Your task to perform on an android device: Search for the new Apple Watch on Best Buy Image 0: 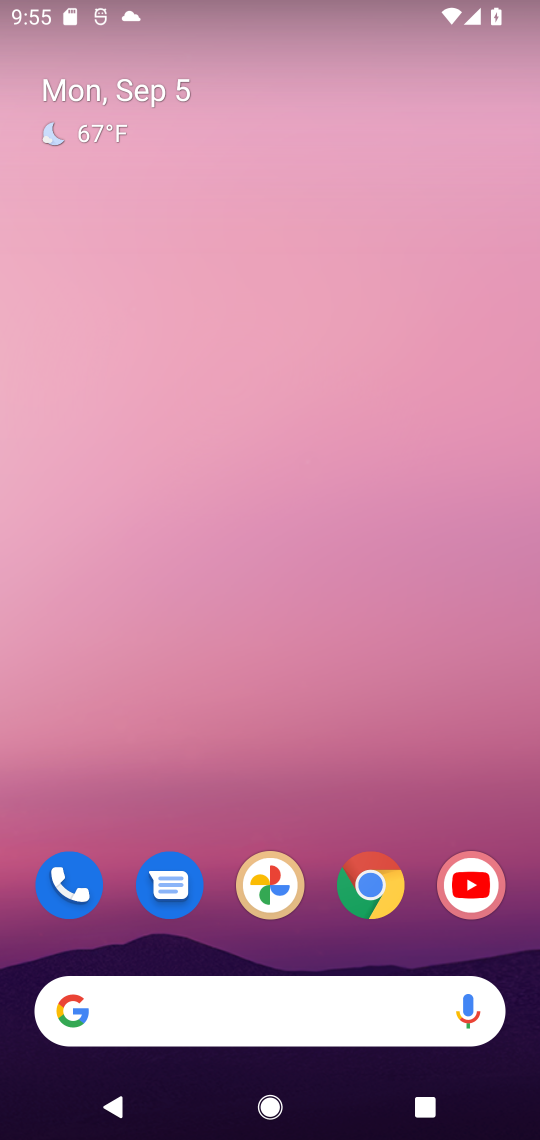
Step 0: click (367, 891)
Your task to perform on an android device: Search for the new Apple Watch on Best Buy Image 1: 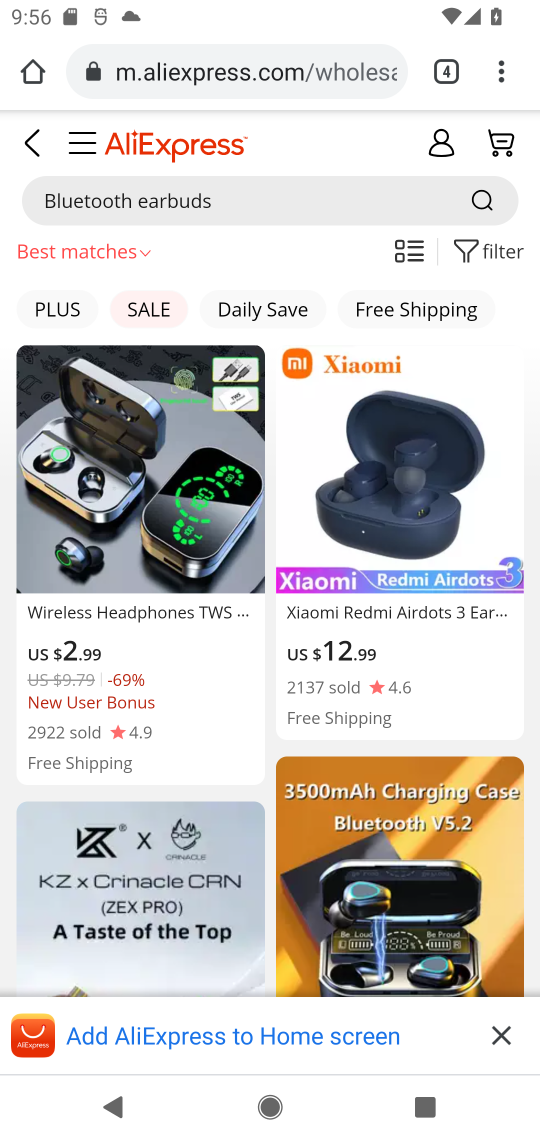
Step 1: click (498, 82)
Your task to perform on an android device: Search for the new Apple Watch on Best Buy Image 2: 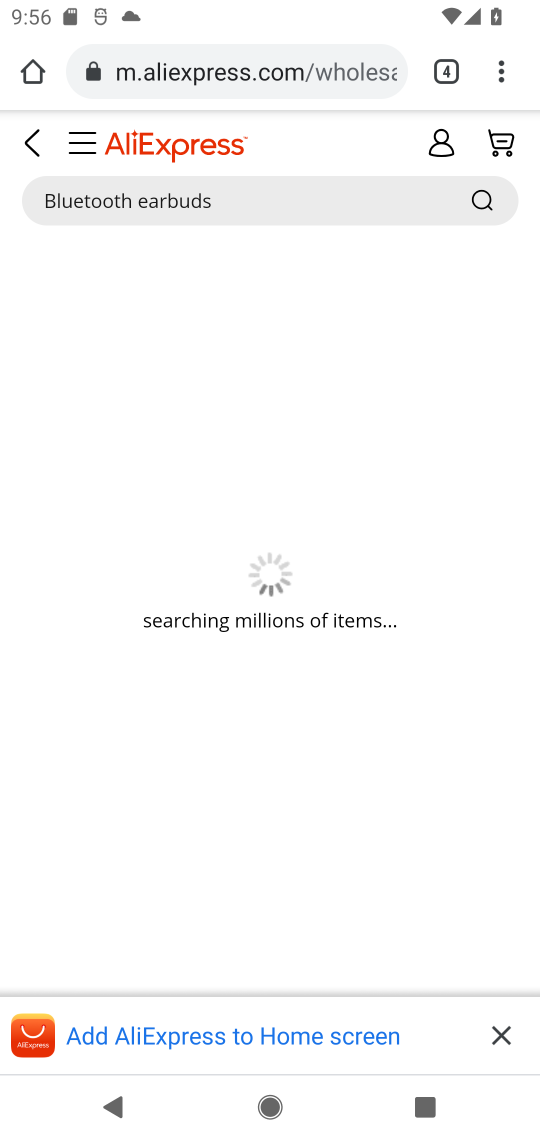
Step 2: drag from (502, 78) to (258, 241)
Your task to perform on an android device: Search for the new Apple Watch on Best Buy Image 3: 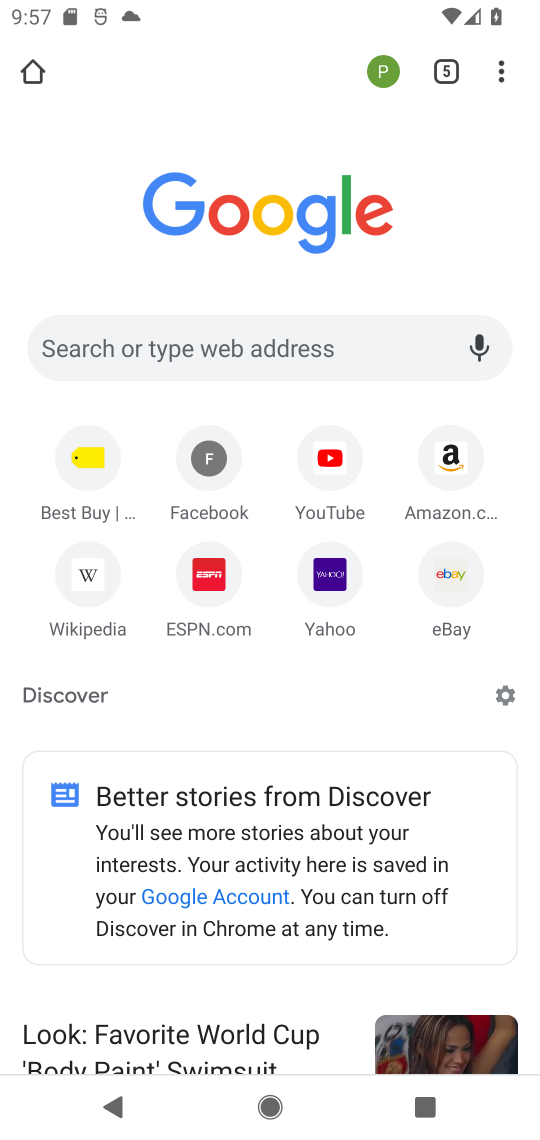
Step 3: click (294, 348)
Your task to perform on an android device: Search for the new Apple Watch on Best Buy Image 4: 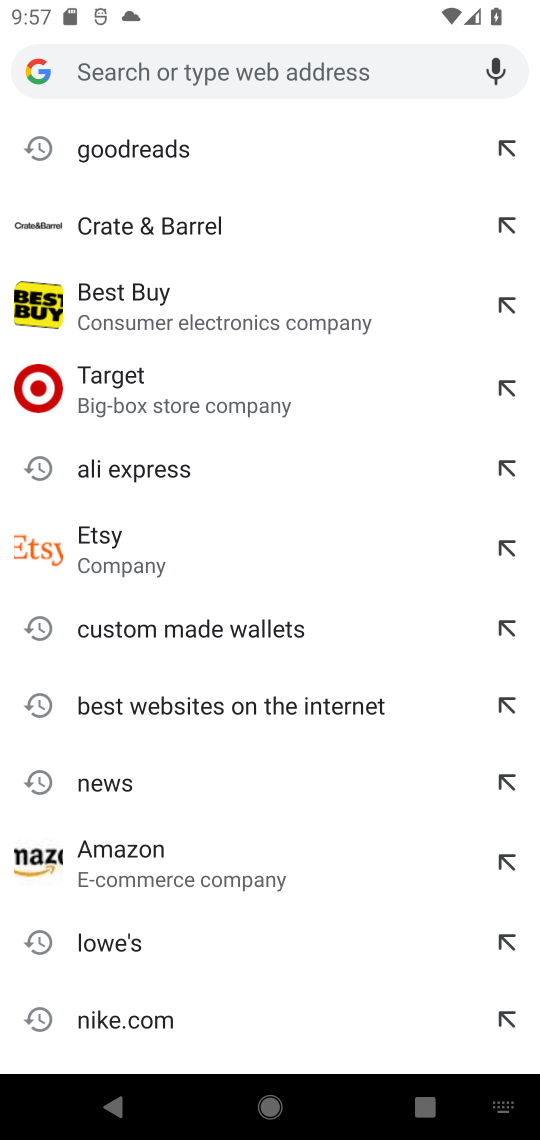
Step 4: type "Best Buy"
Your task to perform on an android device: Search for the new Apple Watch on Best Buy Image 5: 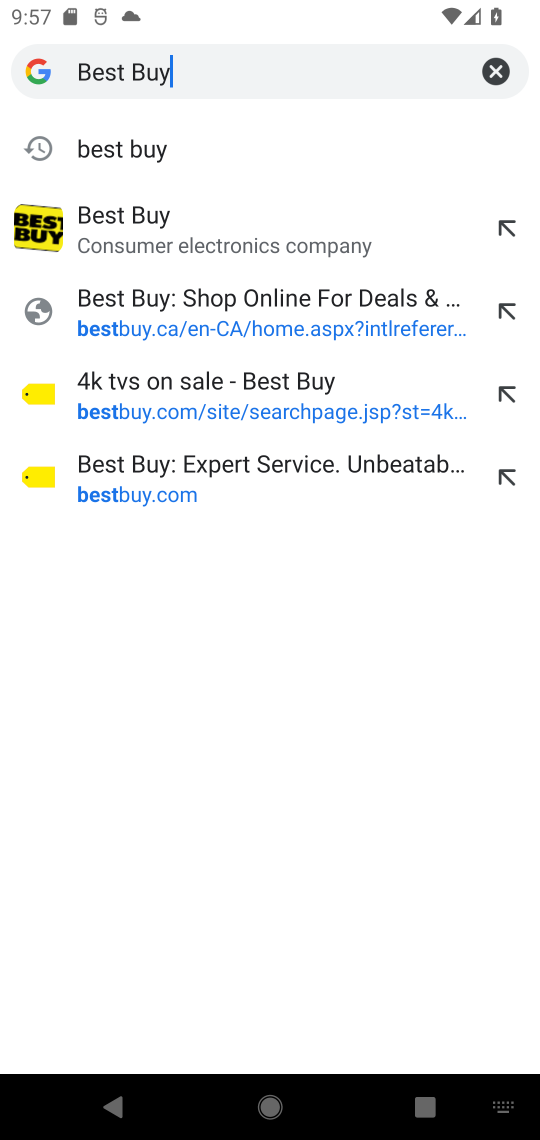
Step 5: click (141, 150)
Your task to perform on an android device: Search for the new Apple Watch on Best Buy Image 6: 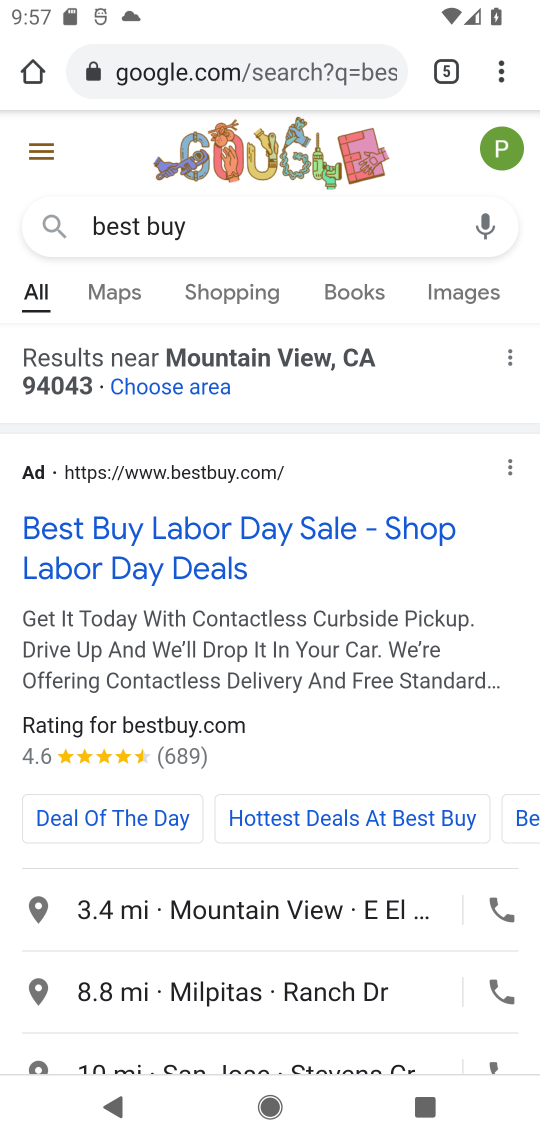
Step 6: click (270, 538)
Your task to perform on an android device: Search for the new Apple Watch on Best Buy Image 7: 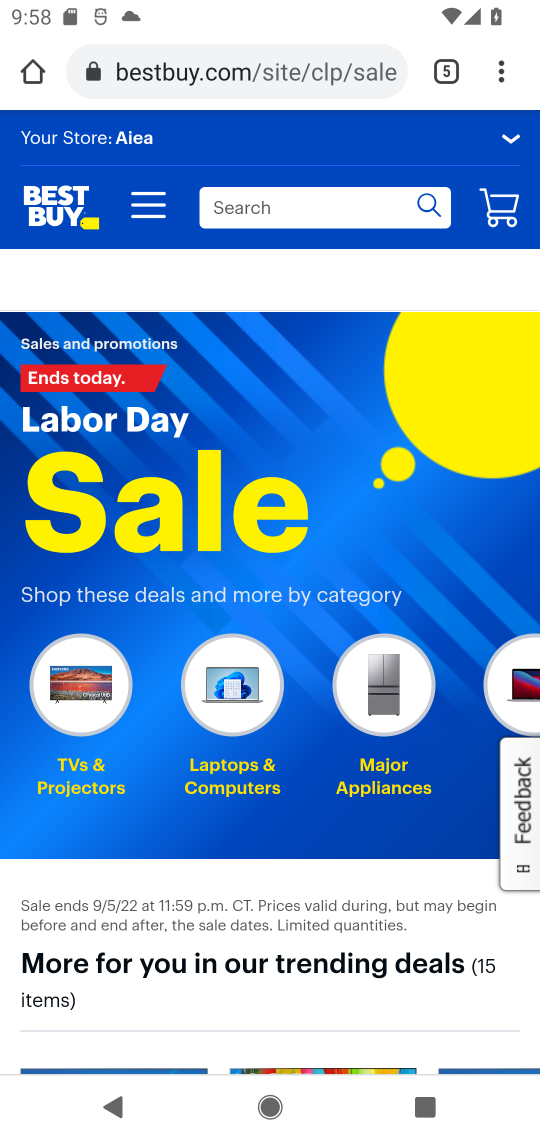
Step 7: click (279, 201)
Your task to perform on an android device: Search for the new Apple Watch on Best Buy Image 8: 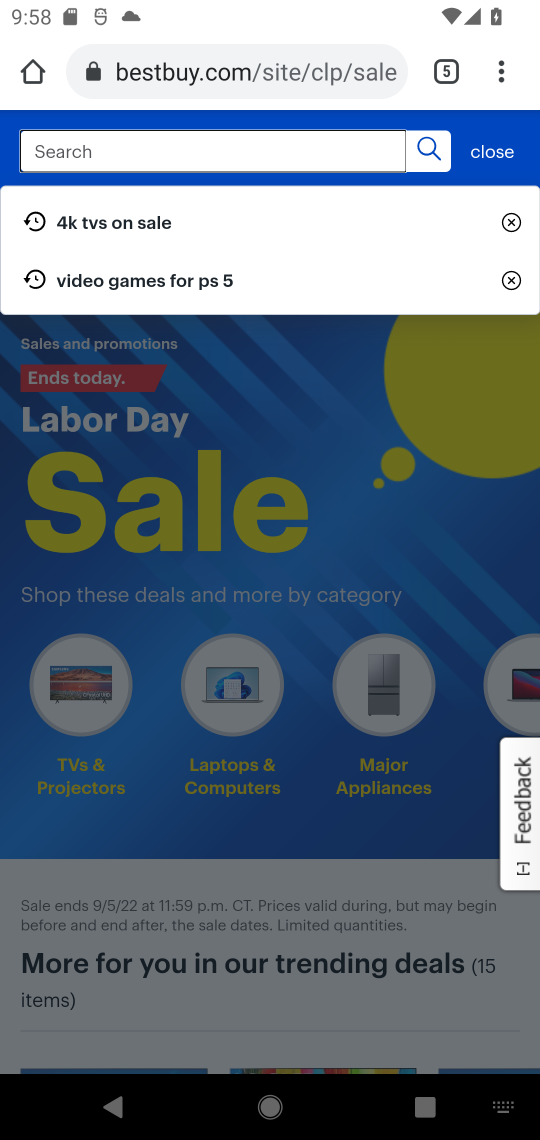
Step 8: type "new Apple Watch "
Your task to perform on an android device: Search for the new Apple Watch on Best Buy Image 9: 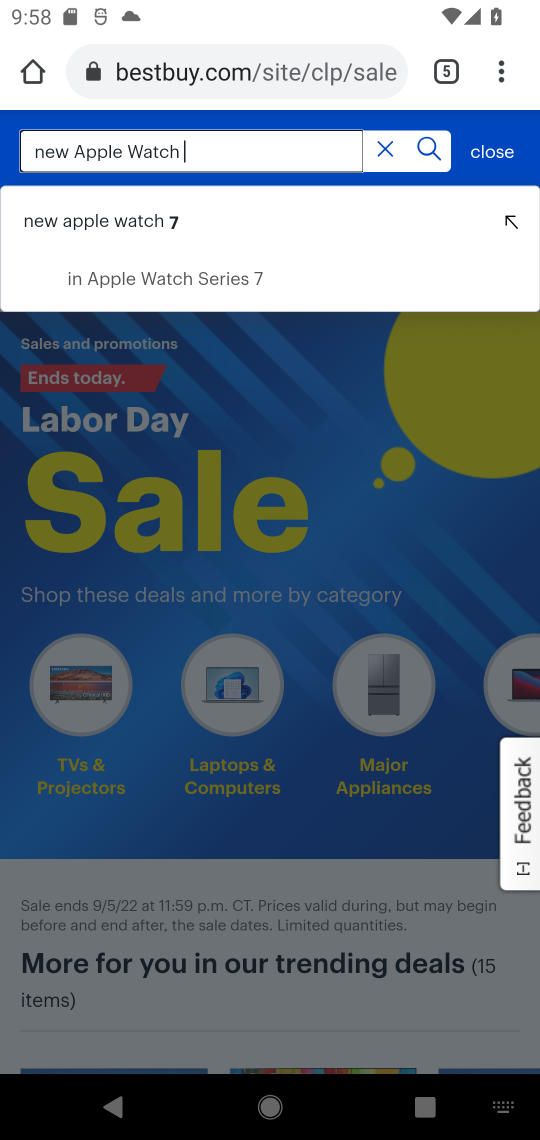
Step 9: click (121, 220)
Your task to perform on an android device: Search for the new Apple Watch on Best Buy Image 10: 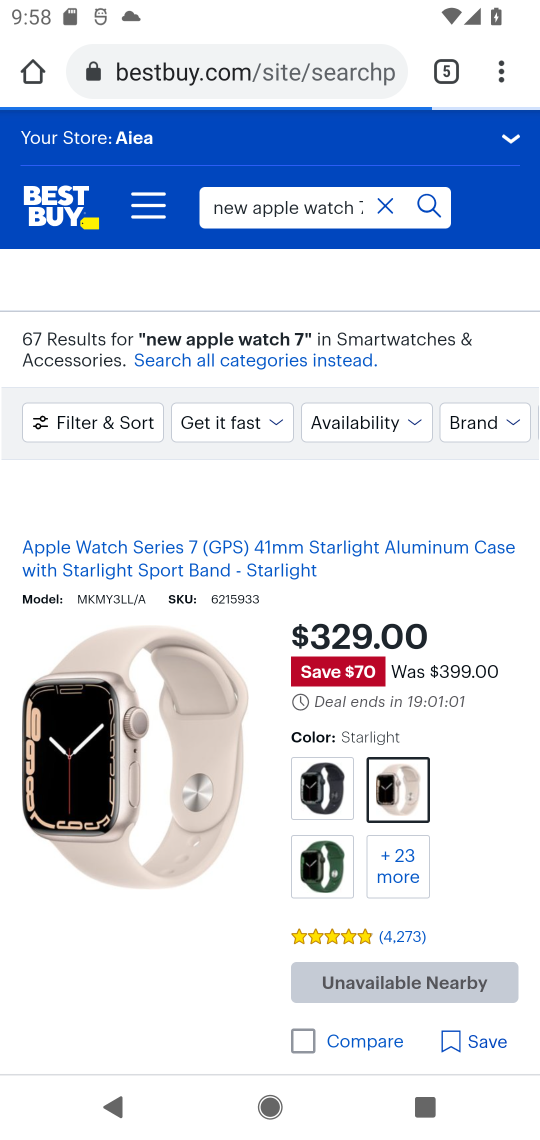
Step 10: task complete